Your task to perform on an android device: Toggle the flashlight Image 0: 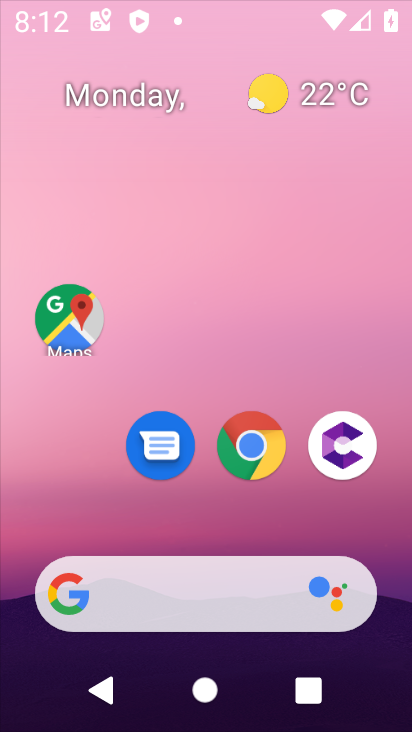
Step 0: press home button
Your task to perform on an android device: Toggle the flashlight Image 1: 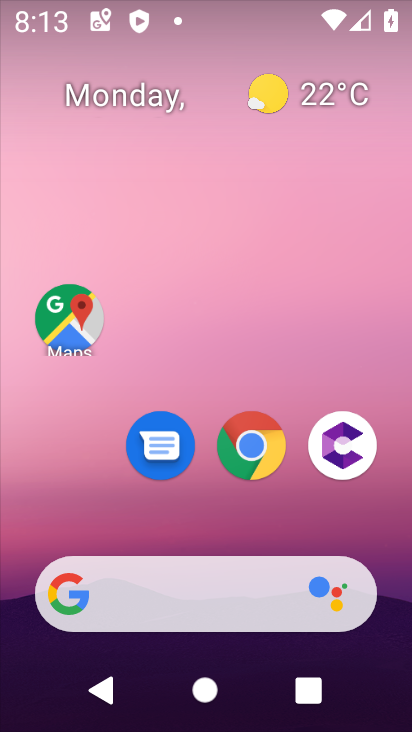
Step 1: task complete